Your task to perform on an android device: toggle sleep mode Image 0: 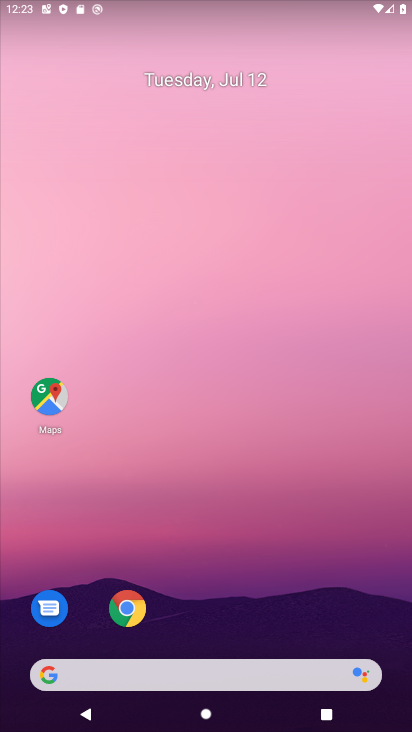
Step 0: drag from (130, 13) to (195, 600)
Your task to perform on an android device: toggle sleep mode Image 1: 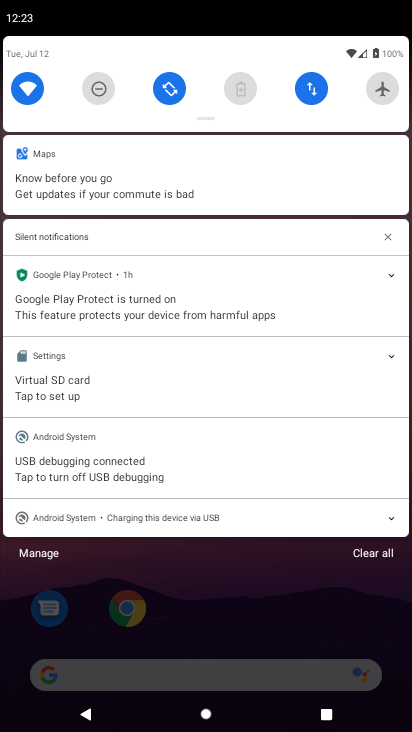
Step 1: drag from (219, 58) to (312, 603)
Your task to perform on an android device: toggle sleep mode Image 2: 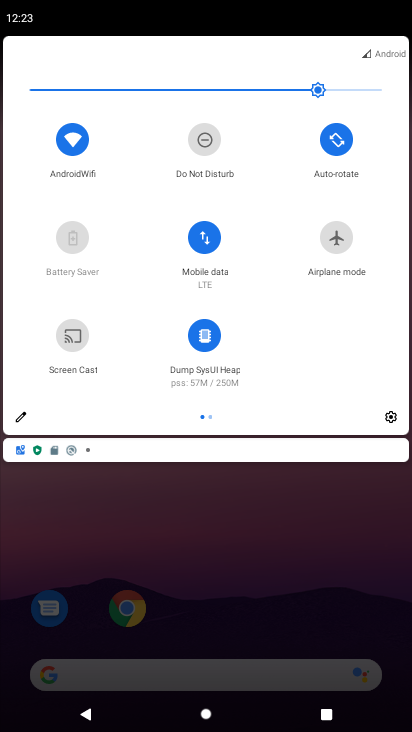
Step 2: click (393, 414)
Your task to perform on an android device: toggle sleep mode Image 3: 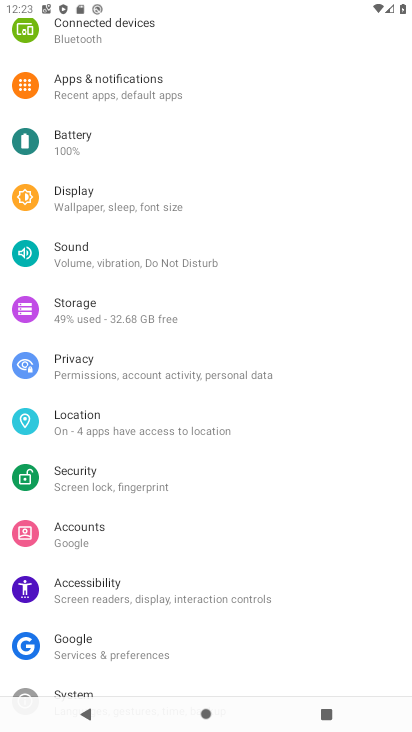
Step 3: task complete